Your task to perform on an android device: Open the phone app and click the voicemail tab. Image 0: 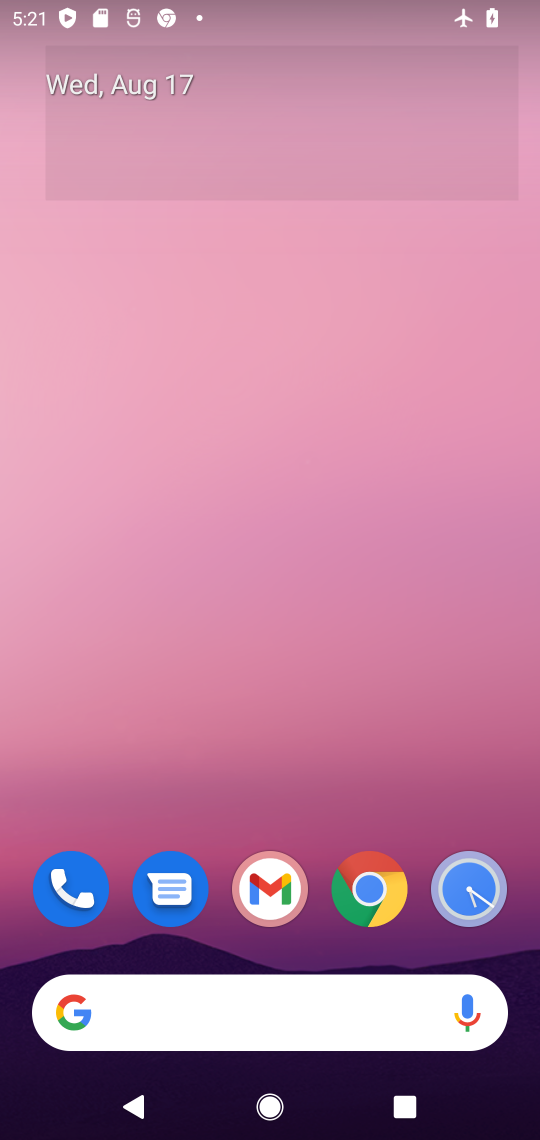
Step 0: drag from (305, 805) to (255, 57)
Your task to perform on an android device: Open the phone app and click the voicemail tab. Image 1: 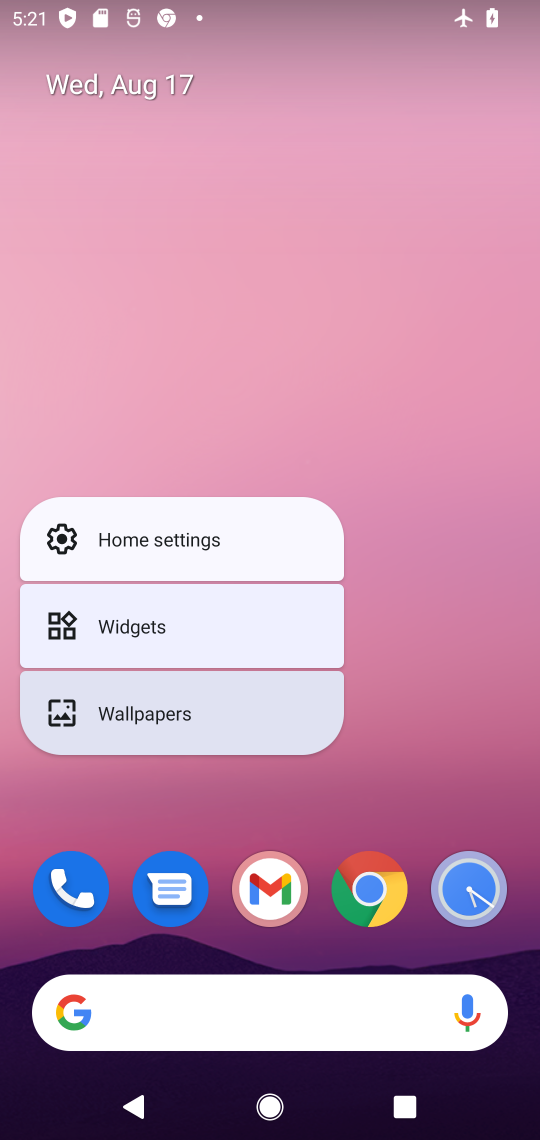
Step 1: click (400, 653)
Your task to perform on an android device: Open the phone app and click the voicemail tab. Image 2: 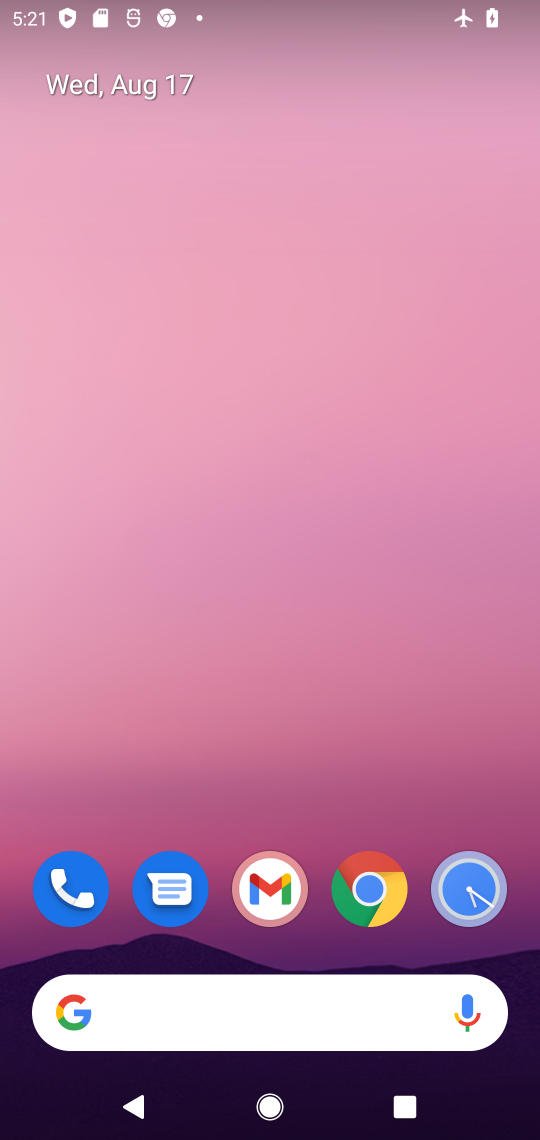
Step 2: drag from (310, 951) to (360, 304)
Your task to perform on an android device: Open the phone app and click the voicemail tab. Image 3: 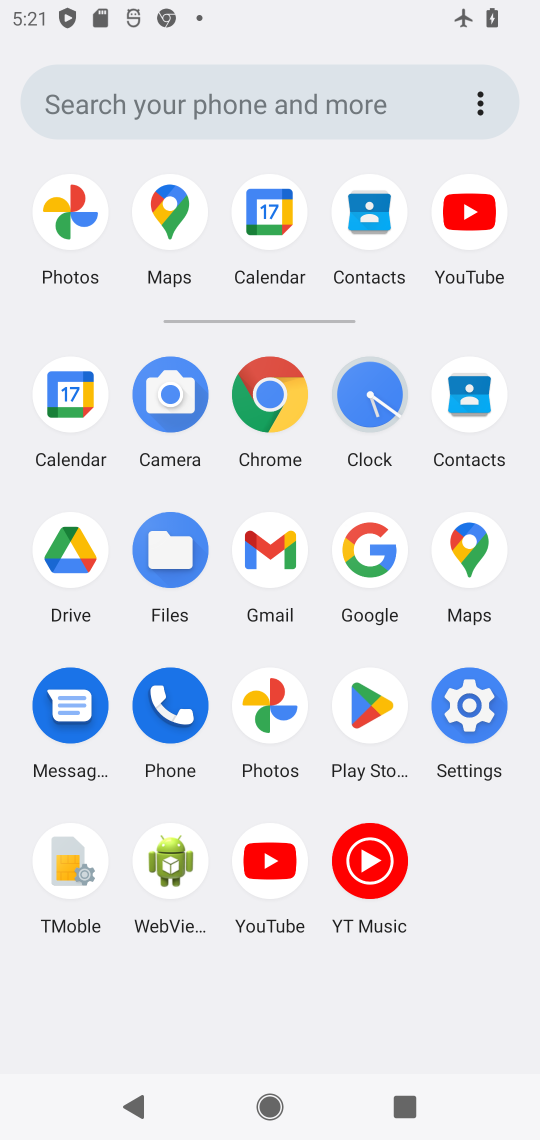
Step 3: click (176, 710)
Your task to perform on an android device: Open the phone app and click the voicemail tab. Image 4: 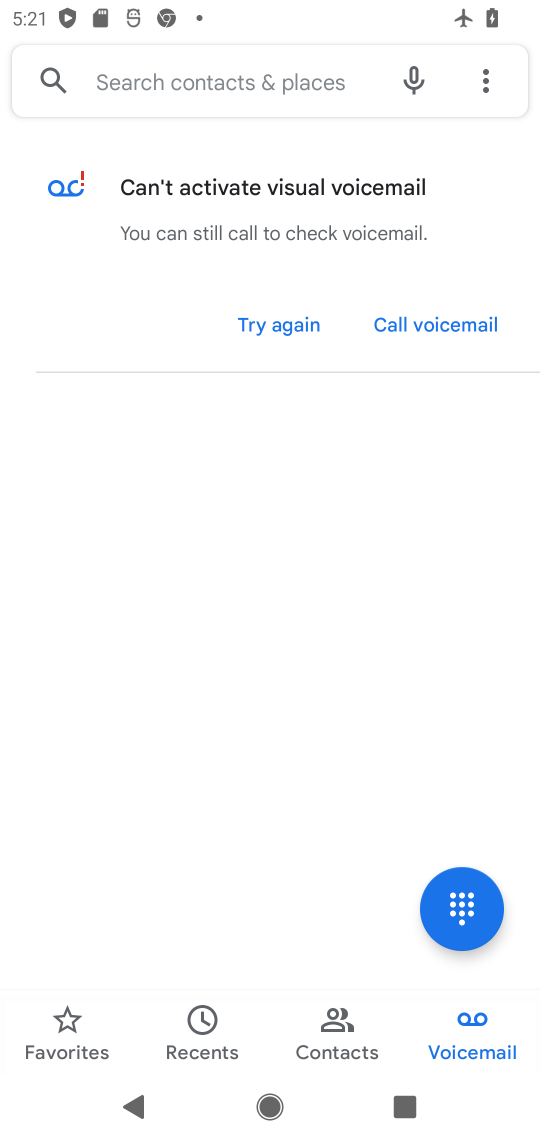
Step 4: click (478, 1041)
Your task to perform on an android device: Open the phone app and click the voicemail tab. Image 5: 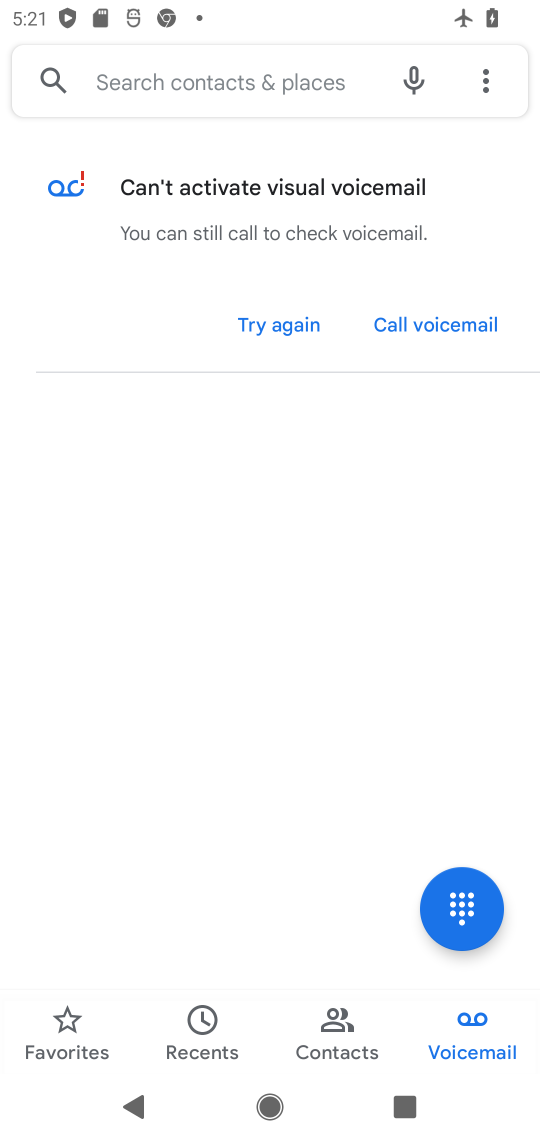
Step 5: task complete